Your task to perform on an android device: Open eBay Image 0: 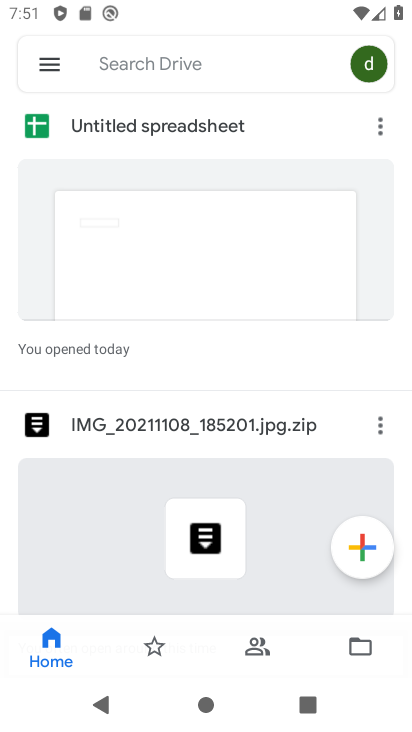
Step 0: drag from (261, 479) to (377, 178)
Your task to perform on an android device: Open eBay Image 1: 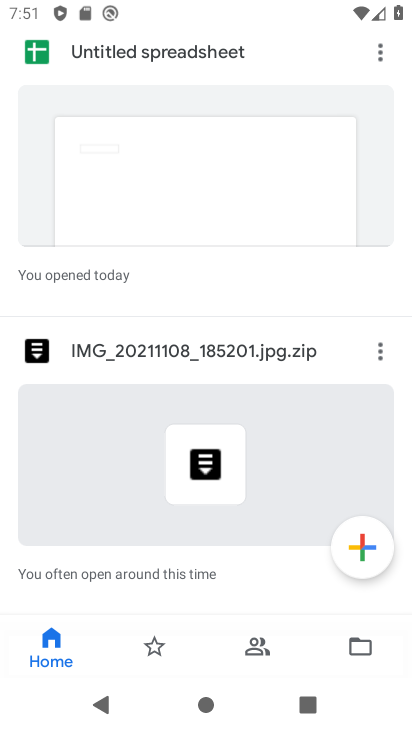
Step 1: press home button
Your task to perform on an android device: Open eBay Image 2: 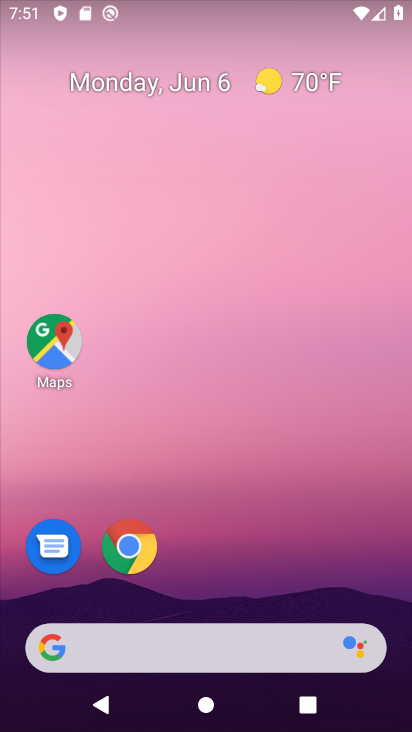
Step 2: drag from (189, 589) to (310, 72)
Your task to perform on an android device: Open eBay Image 3: 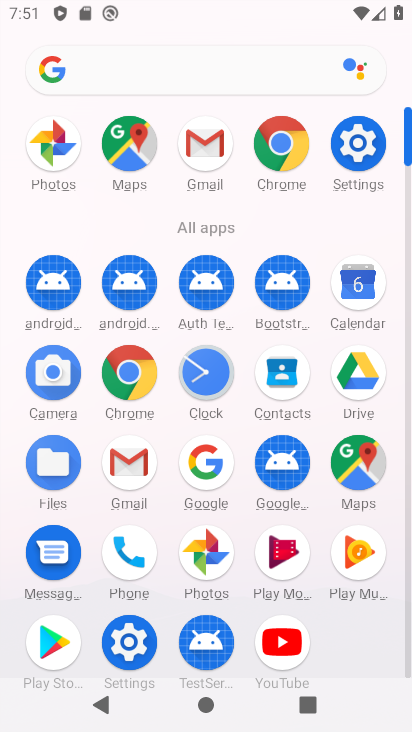
Step 3: click (124, 65)
Your task to perform on an android device: Open eBay Image 4: 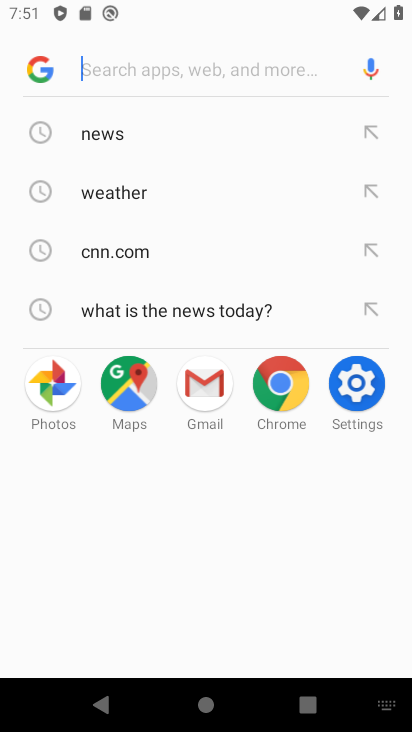
Step 4: type "ebay"
Your task to perform on an android device: Open eBay Image 5: 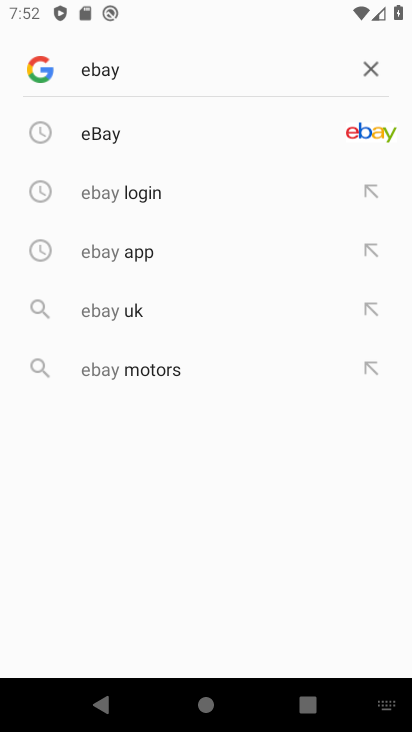
Step 5: click (197, 114)
Your task to perform on an android device: Open eBay Image 6: 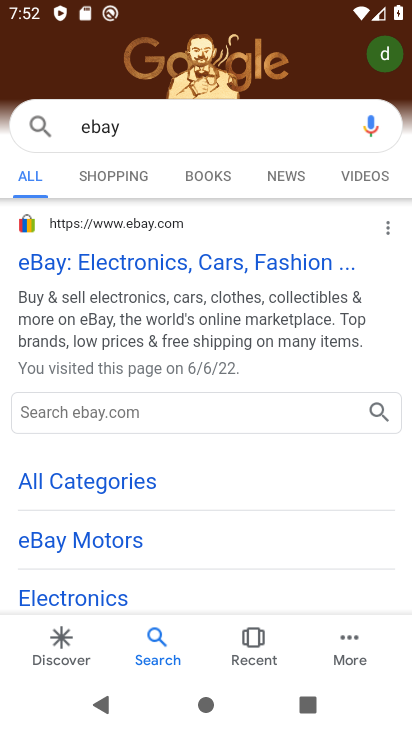
Step 6: drag from (231, 561) to (310, 275)
Your task to perform on an android device: Open eBay Image 7: 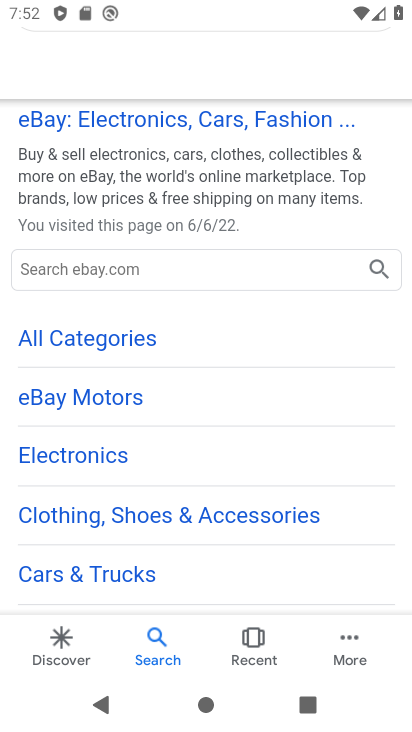
Step 7: drag from (167, 310) to (181, 606)
Your task to perform on an android device: Open eBay Image 8: 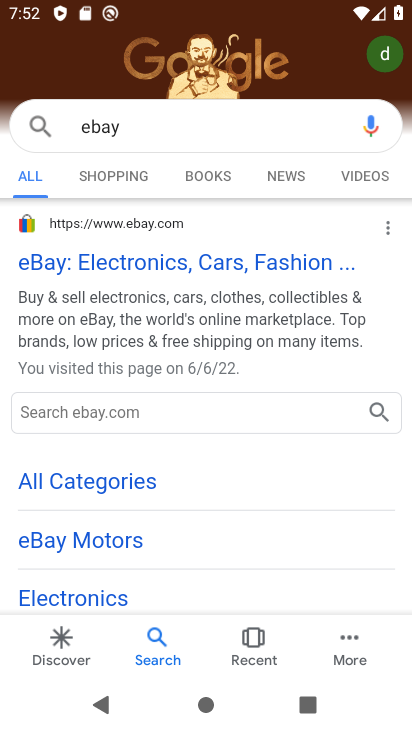
Step 8: click (142, 266)
Your task to perform on an android device: Open eBay Image 9: 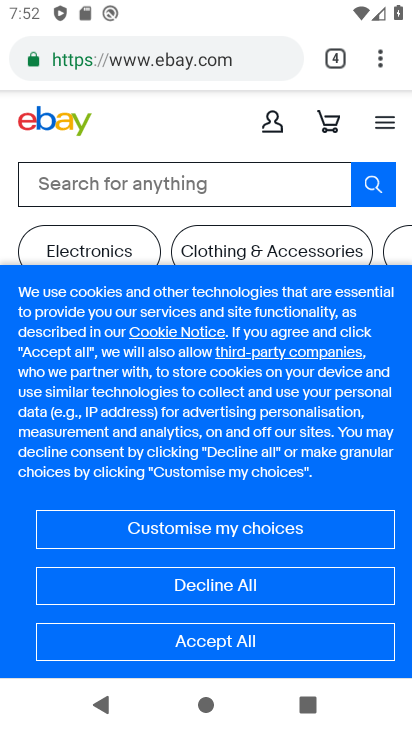
Step 9: task complete